Your task to perform on an android device: search for starred emails in the gmail app Image 0: 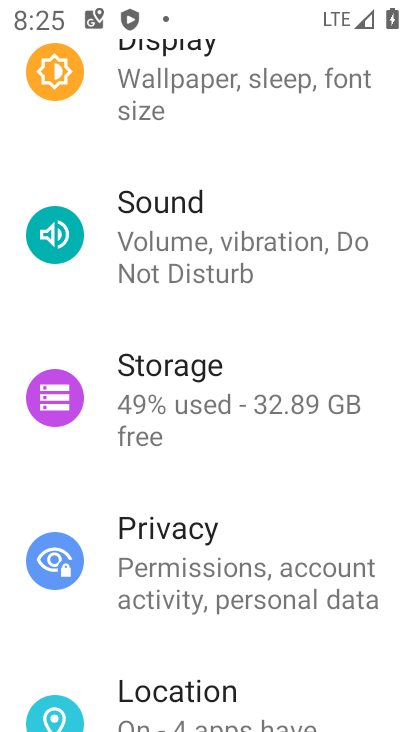
Step 0: press home button
Your task to perform on an android device: search for starred emails in the gmail app Image 1: 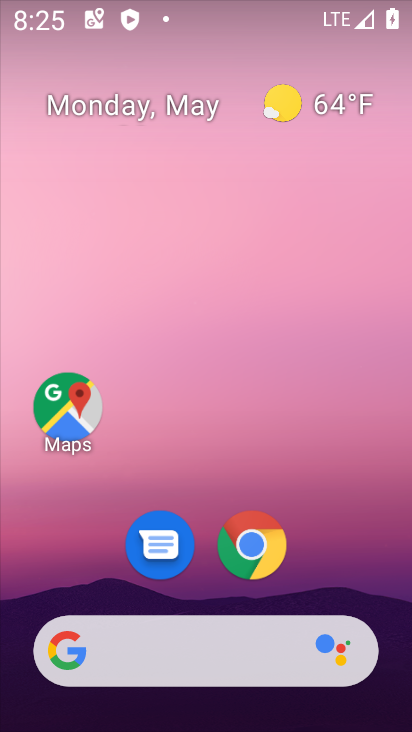
Step 1: drag from (220, 671) to (2, 150)
Your task to perform on an android device: search for starred emails in the gmail app Image 2: 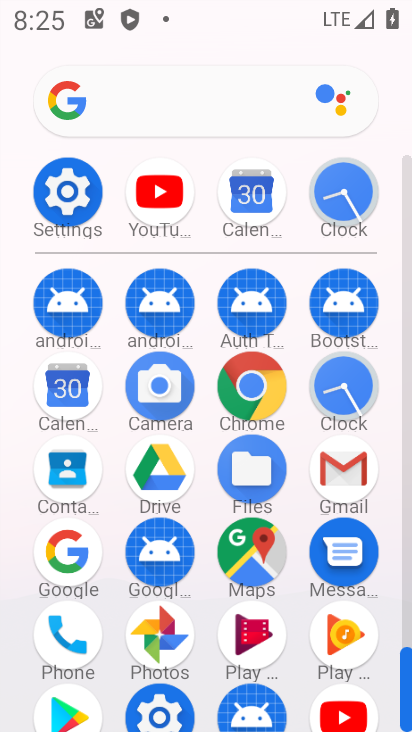
Step 2: click (350, 473)
Your task to perform on an android device: search for starred emails in the gmail app Image 3: 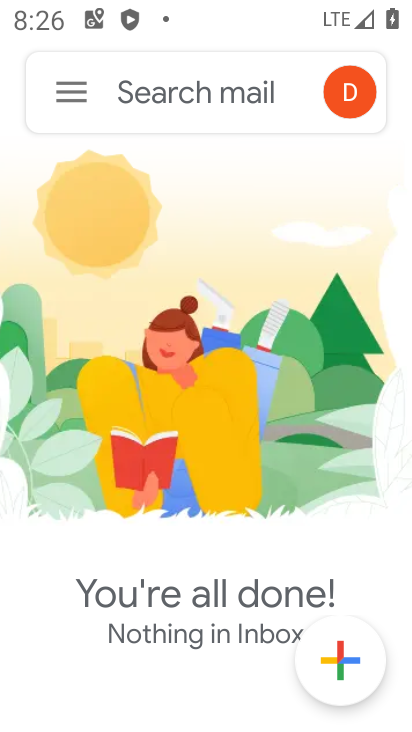
Step 3: click (60, 88)
Your task to perform on an android device: search for starred emails in the gmail app Image 4: 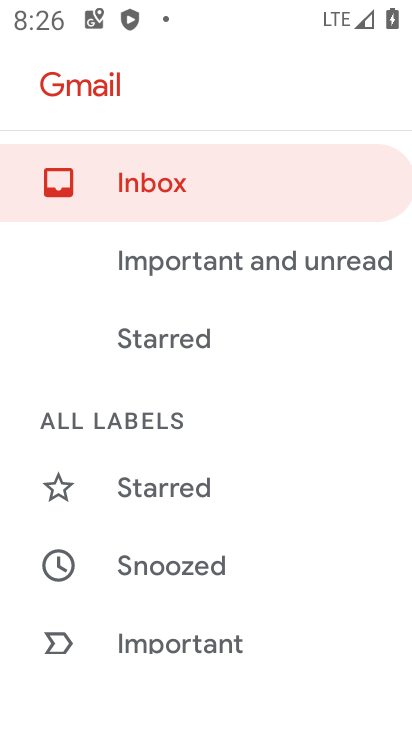
Step 4: click (236, 330)
Your task to perform on an android device: search for starred emails in the gmail app Image 5: 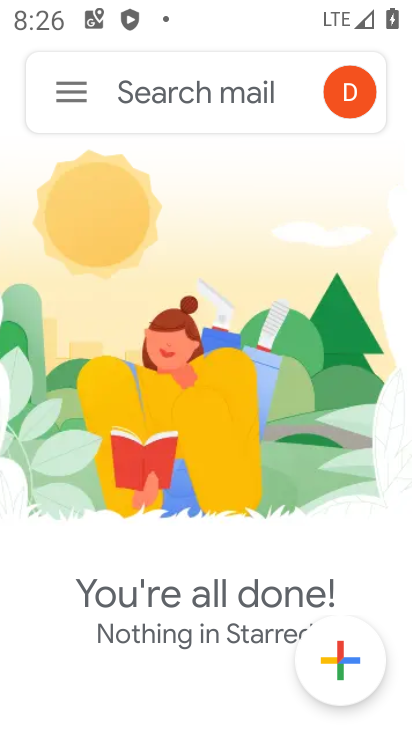
Step 5: task complete